Your task to perform on an android device: see tabs open on other devices in the chrome app Image 0: 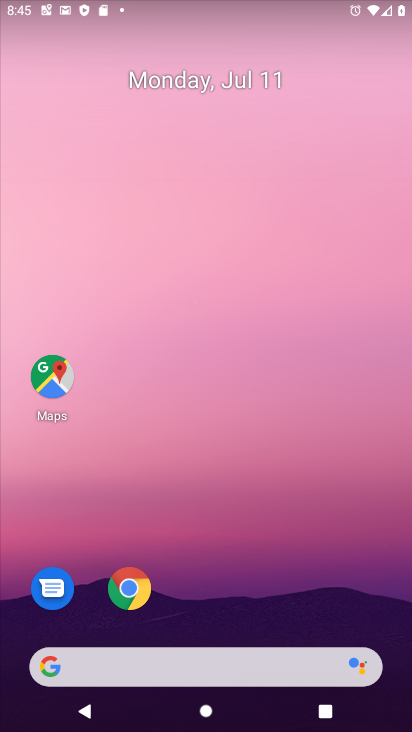
Step 0: click (137, 591)
Your task to perform on an android device: see tabs open on other devices in the chrome app Image 1: 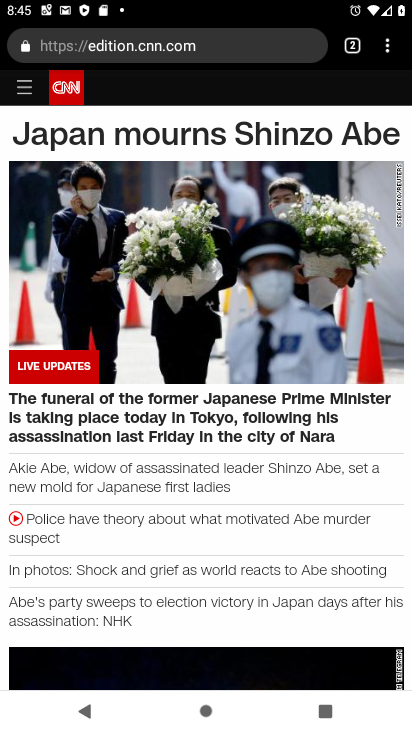
Step 1: task complete